Your task to perform on an android device: open the mobile data screen to see how much data has been used Image 0: 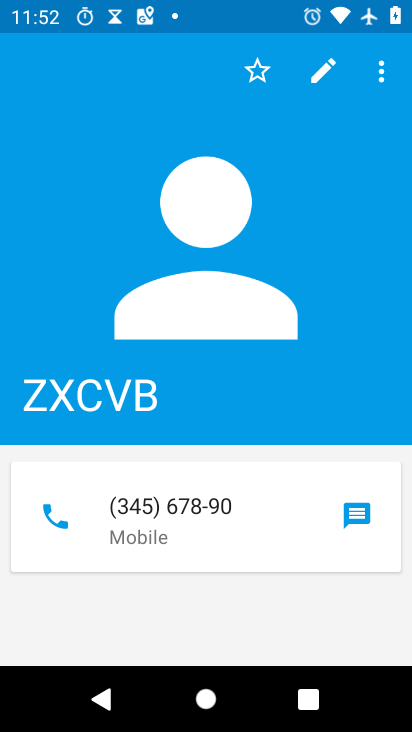
Step 0: press back button
Your task to perform on an android device: open the mobile data screen to see how much data has been used Image 1: 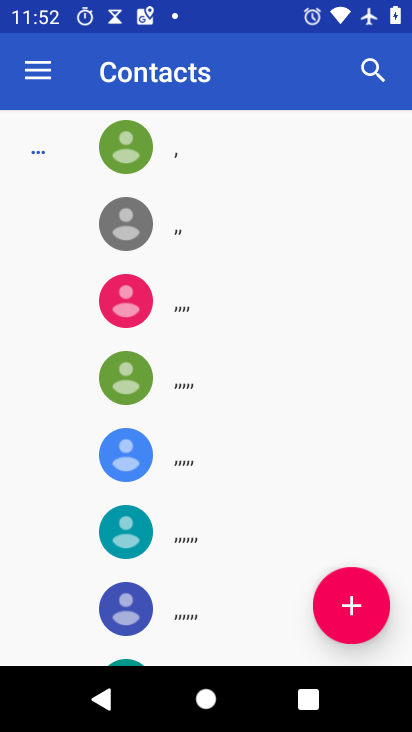
Step 1: press back button
Your task to perform on an android device: open the mobile data screen to see how much data has been used Image 2: 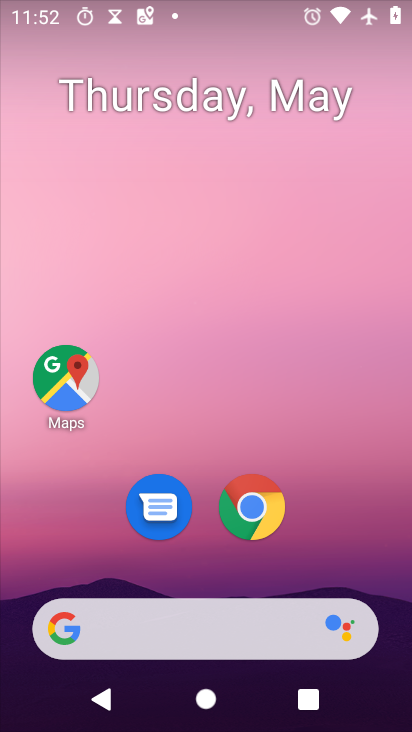
Step 2: drag from (355, 559) to (260, 24)
Your task to perform on an android device: open the mobile data screen to see how much data has been used Image 3: 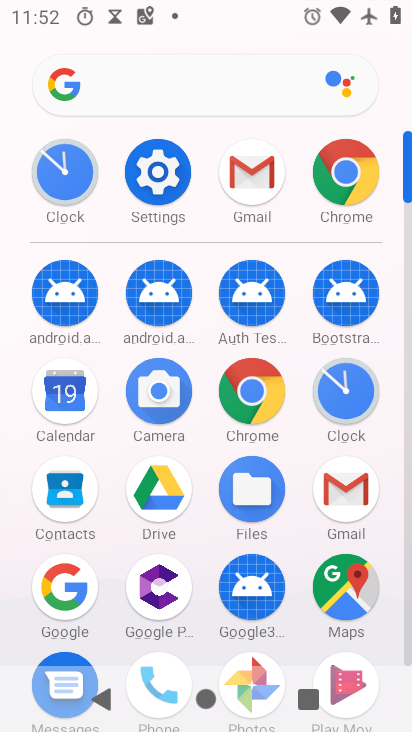
Step 3: drag from (9, 624) to (31, 293)
Your task to perform on an android device: open the mobile data screen to see how much data has been used Image 4: 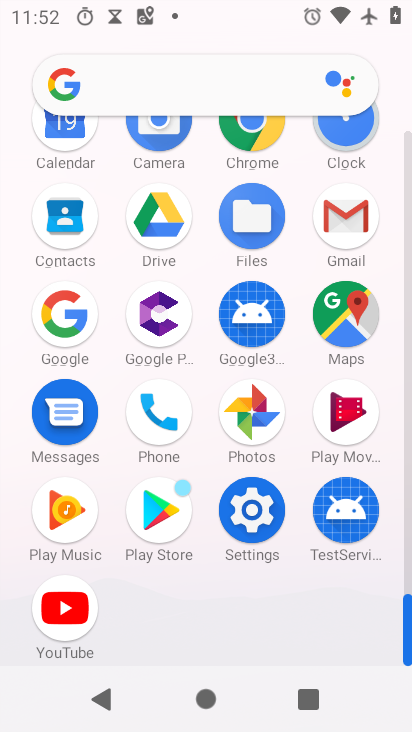
Step 4: drag from (6, 573) to (31, 245)
Your task to perform on an android device: open the mobile data screen to see how much data has been used Image 5: 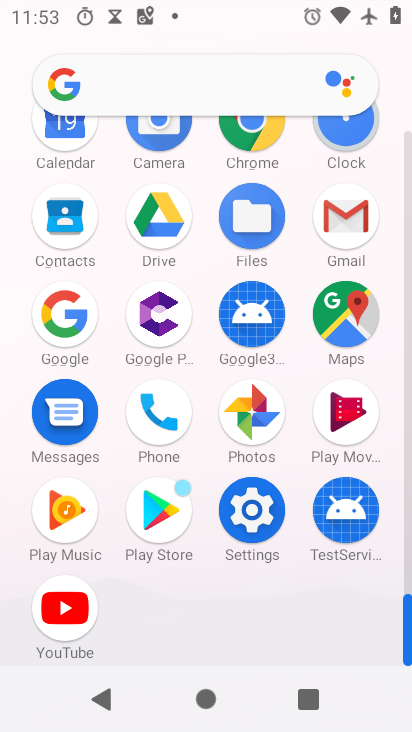
Step 5: click (254, 509)
Your task to perform on an android device: open the mobile data screen to see how much data has been used Image 6: 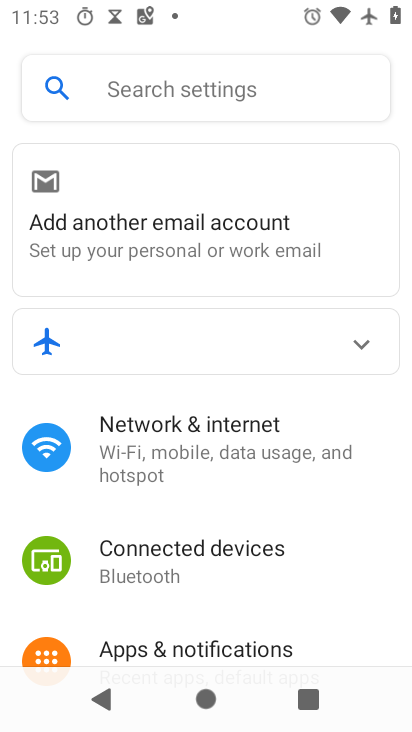
Step 6: click (190, 444)
Your task to perform on an android device: open the mobile data screen to see how much data has been used Image 7: 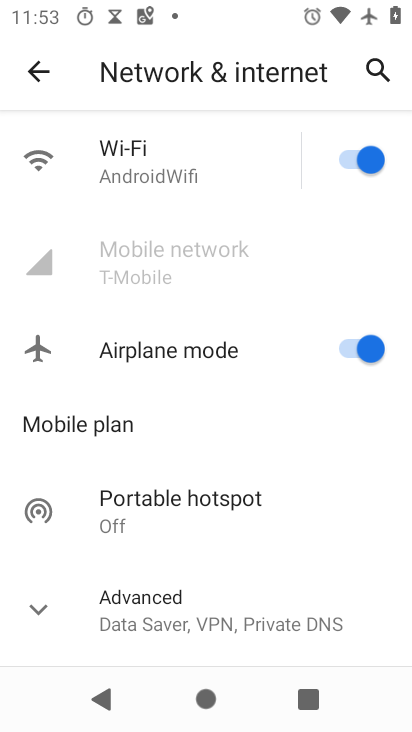
Step 7: task complete